Your task to perform on an android device: turn off smart reply in the gmail app Image 0: 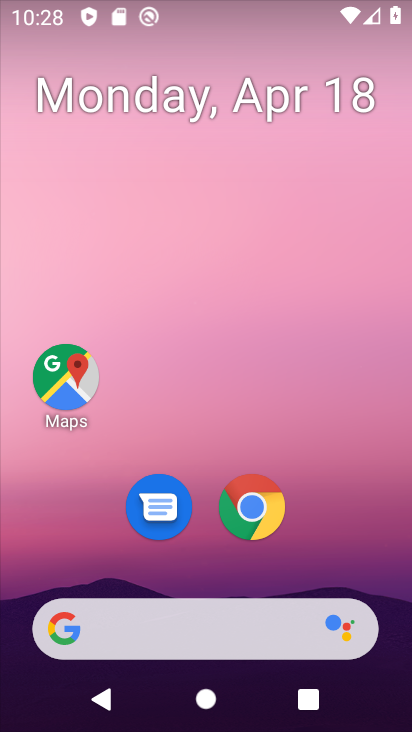
Step 0: drag from (370, 439) to (407, 153)
Your task to perform on an android device: turn off smart reply in the gmail app Image 1: 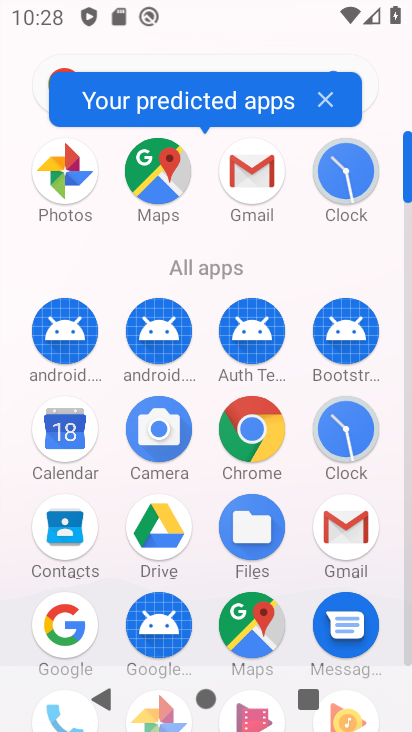
Step 1: click (330, 522)
Your task to perform on an android device: turn off smart reply in the gmail app Image 2: 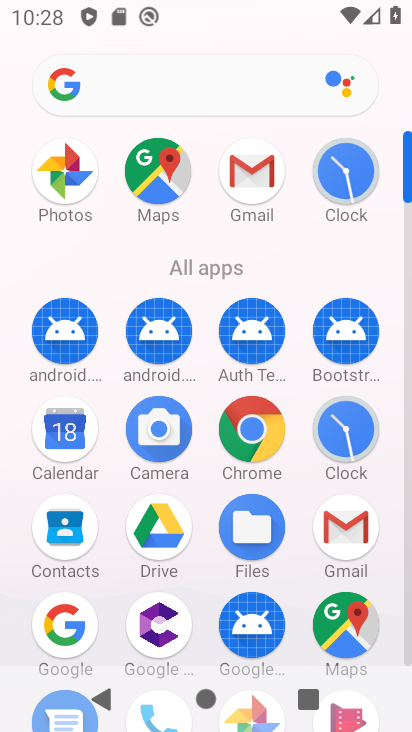
Step 2: click (343, 528)
Your task to perform on an android device: turn off smart reply in the gmail app Image 3: 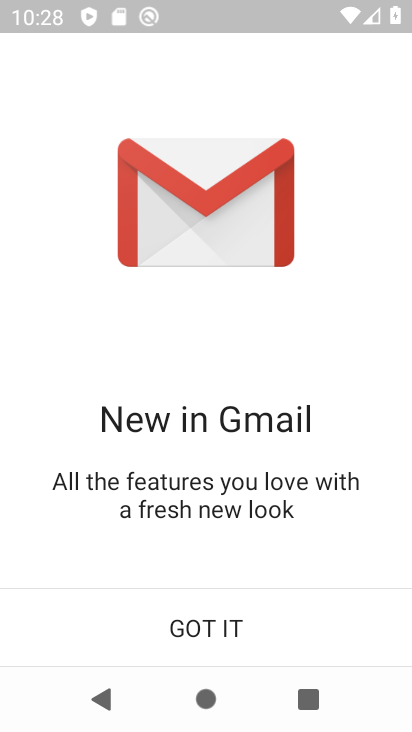
Step 3: click (200, 622)
Your task to perform on an android device: turn off smart reply in the gmail app Image 4: 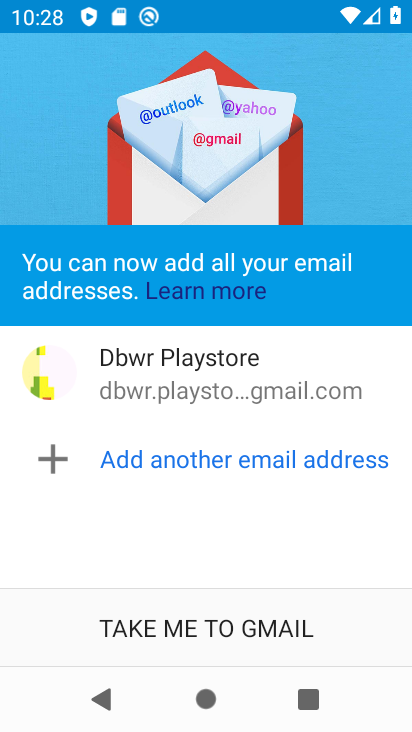
Step 4: click (239, 612)
Your task to perform on an android device: turn off smart reply in the gmail app Image 5: 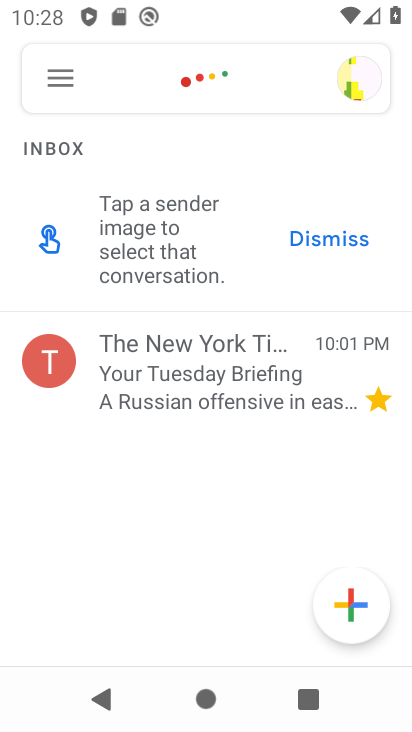
Step 5: click (312, 234)
Your task to perform on an android device: turn off smart reply in the gmail app Image 6: 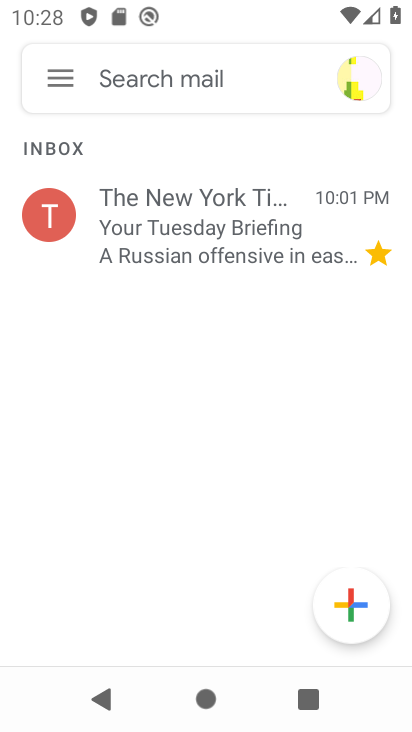
Step 6: click (64, 82)
Your task to perform on an android device: turn off smart reply in the gmail app Image 7: 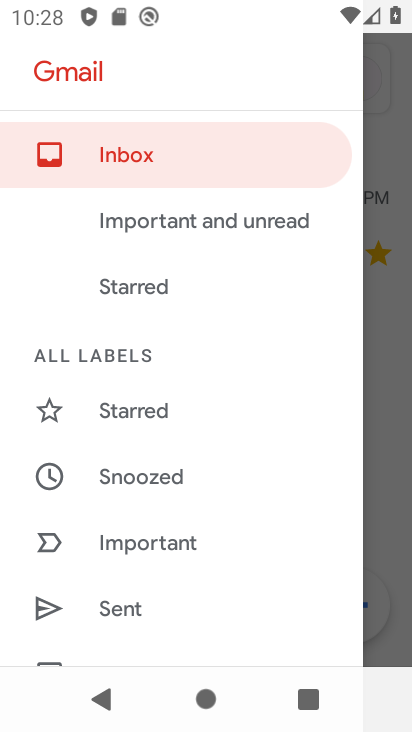
Step 7: drag from (154, 536) to (266, 353)
Your task to perform on an android device: turn off smart reply in the gmail app Image 8: 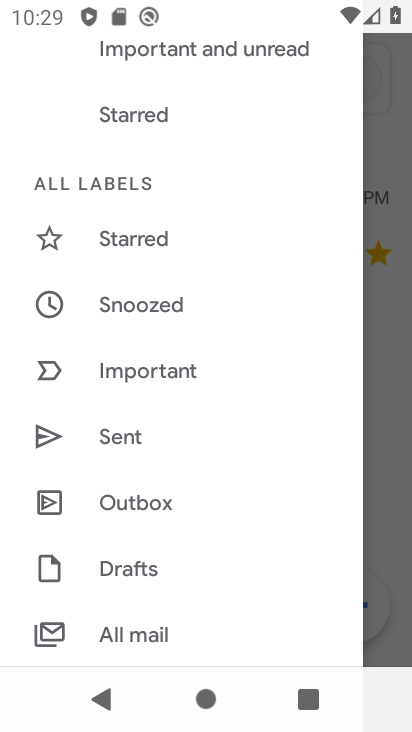
Step 8: drag from (175, 554) to (226, 350)
Your task to perform on an android device: turn off smart reply in the gmail app Image 9: 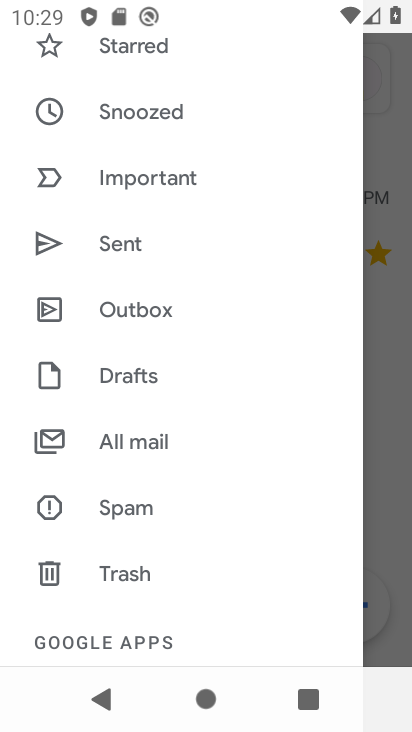
Step 9: drag from (155, 526) to (204, 391)
Your task to perform on an android device: turn off smart reply in the gmail app Image 10: 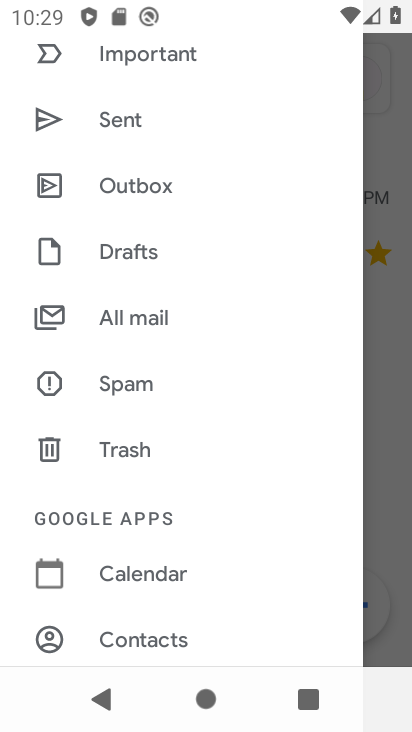
Step 10: drag from (169, 572) to (225, 422)
Your task to perform on an android device: turn off smart reply in the gmail app Image 11: 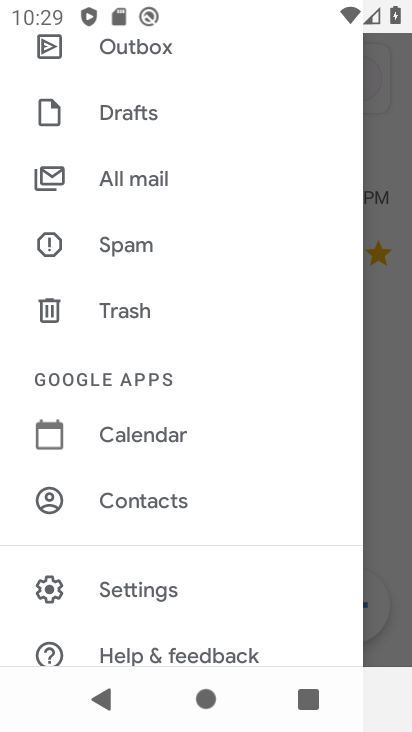
Step 11: click (123, 587)
Your task to perform on an android device: turn off smart reply in the gmail app Image 12: 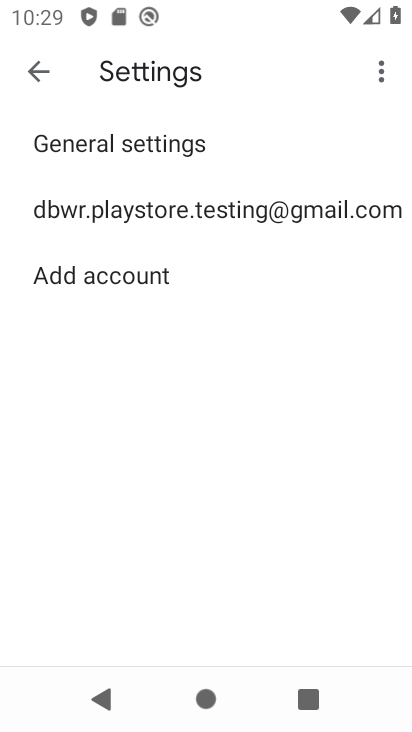
Step 12: click (190, 208)
Your task to perform on an android device: turn off smart reply in the gmail app Image 13: 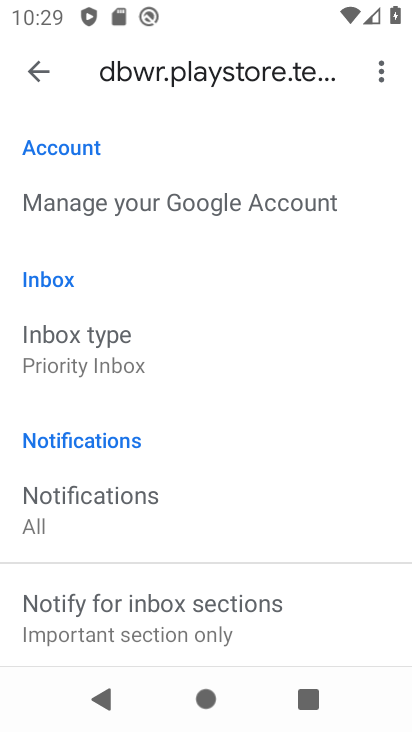
Step 13: drag from (287, 417) to (324, 120)
Your task to perform on an android device: turn off smart reply in the gmail app Image 14: 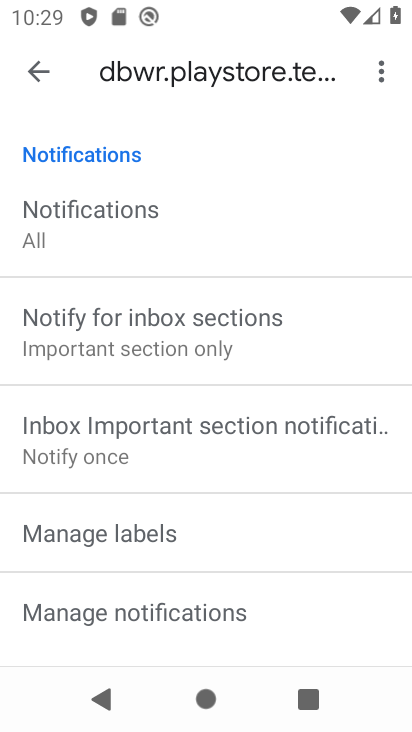
Step 14: drag from (134, 575) to (324, 199)
Your task to perform on an android device: turn off smart reply in the gmail app Image 15: 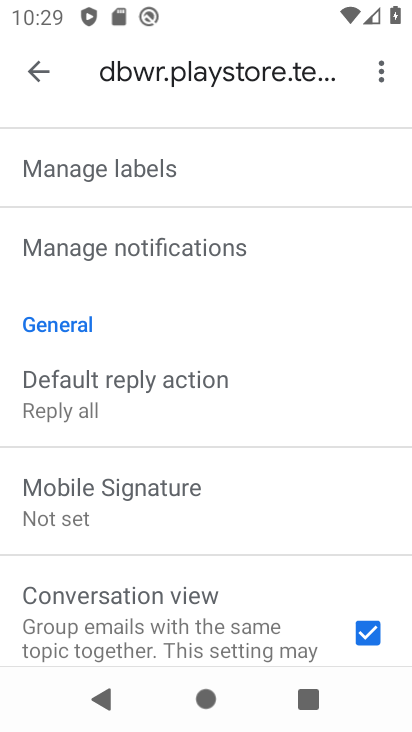
Step 15: drag from (269, 454) to (402, 143)
Your task to perform on an android device: turn off smart reply in the gmail app Image 16: 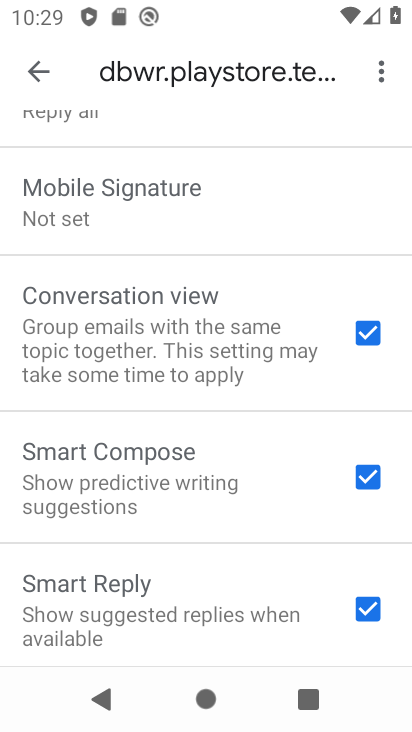
Step 16: drag from (146, 567) to (207, 491)
Your task to perform on an android device: turn off smart reply in the gmail app Image 17: 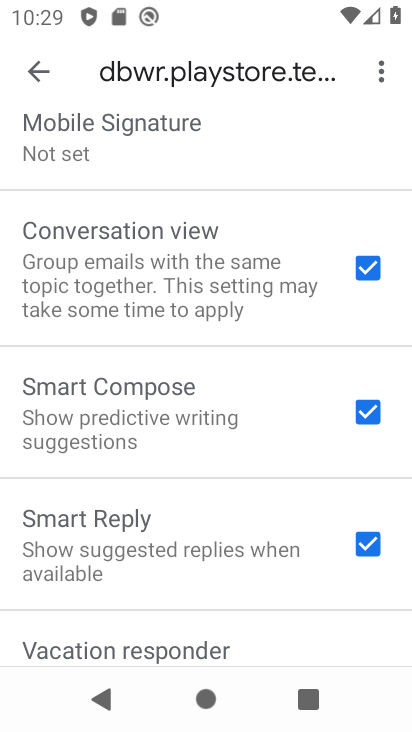
Step 17: click (354, 551)
Your task to perform on an android device: turn off smart reply in the gmail app Image 18: 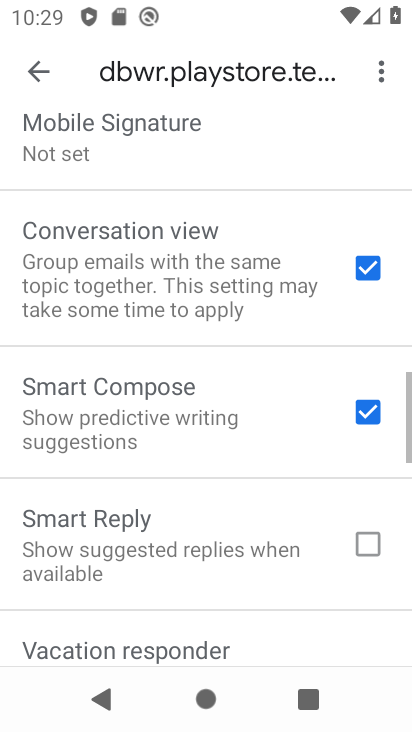
Step 18: task complete